Your task to perform on an android device: Open Reddit.com Image 0: 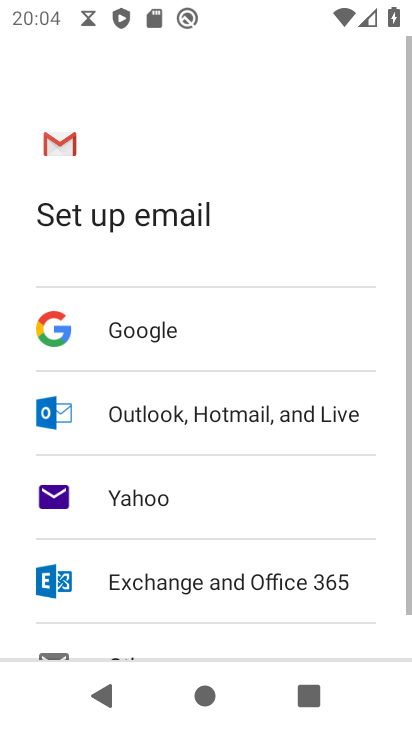
Step 0: press home button
Your task to perform on an android device: Open Reddit.com Image 1: 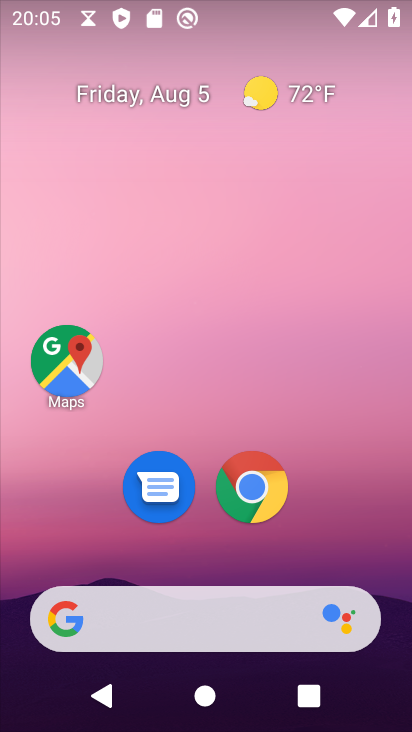
Step 1: click (254, 485)
Your task to perform on an android device: Open Reddit.com Image 2: 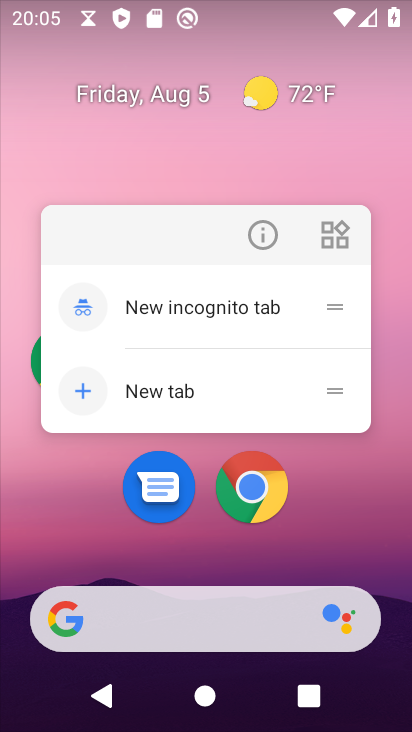
Step 2: click (254, 487)
Your task to perform on an android device: Open Reddit.com Image 3: 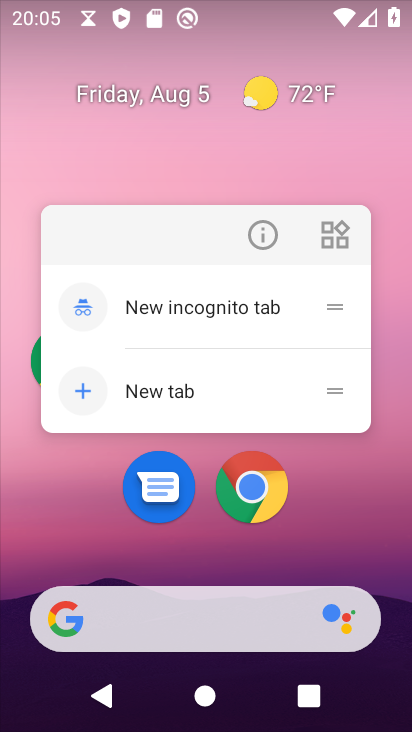
Step 3: click (255, 484)
Your task to perform on an android device: Open Reddit.com Image 4: 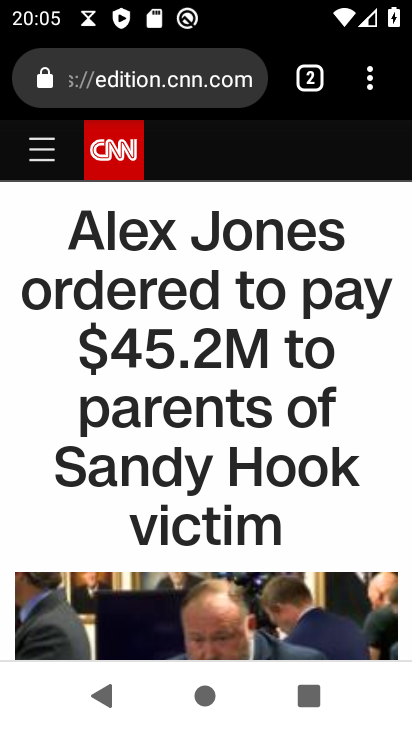
Step 4: drag from (368, 81) to (266, 160)
Your task to perform on an android device: Open Reddit.com Image 5: 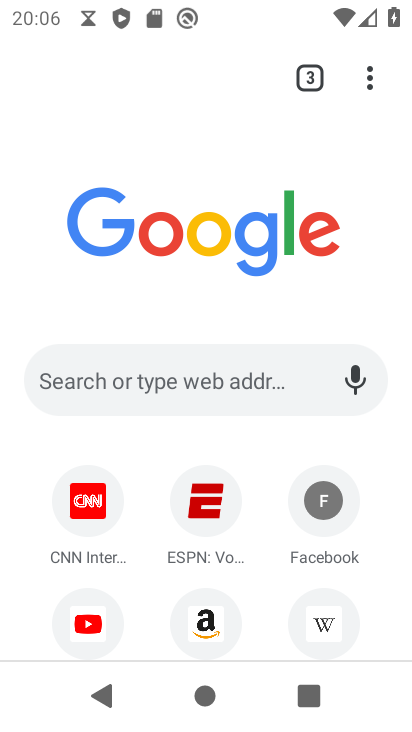
Step 5: click (249, 369)
Your task to perform on an android device: Open Reddit.com Image 6: 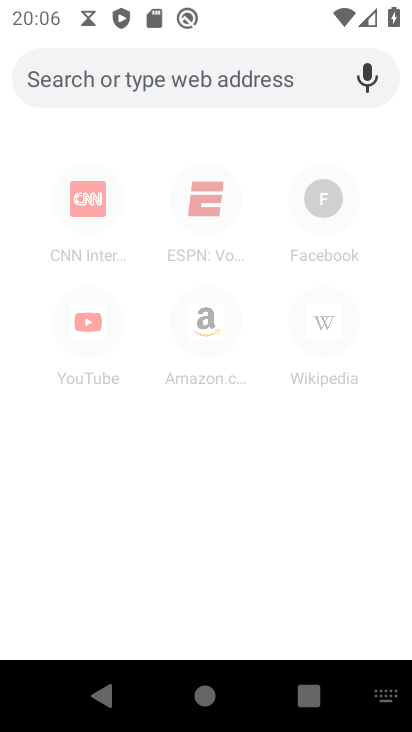
Step 6: type " Reddit.com"
Your task to perform on an android device: Open Reddit.com Image 7: 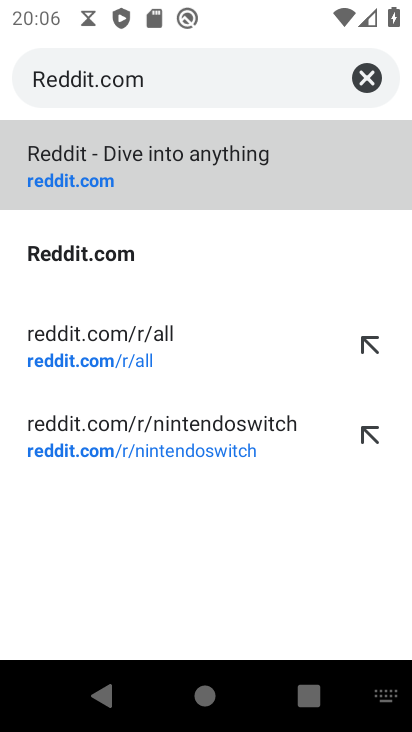
Step 7: click (181, 176)
Your task to perform on an android device: Open Reddit.com Image 8: 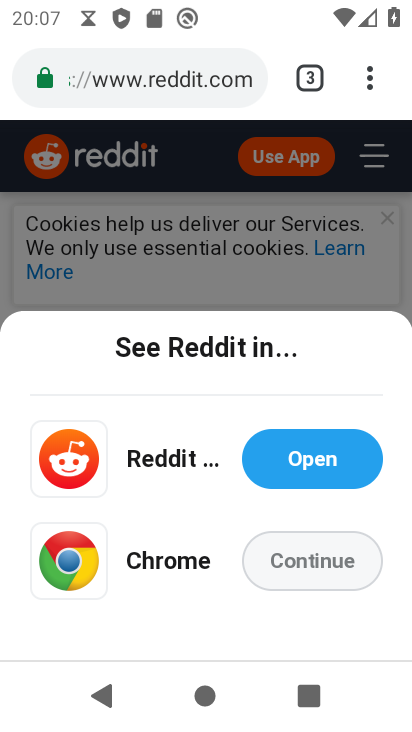
Step 8: task complete